Your task to perform on an android device: Open Google Chrome and open the bookmarks view Image 0: 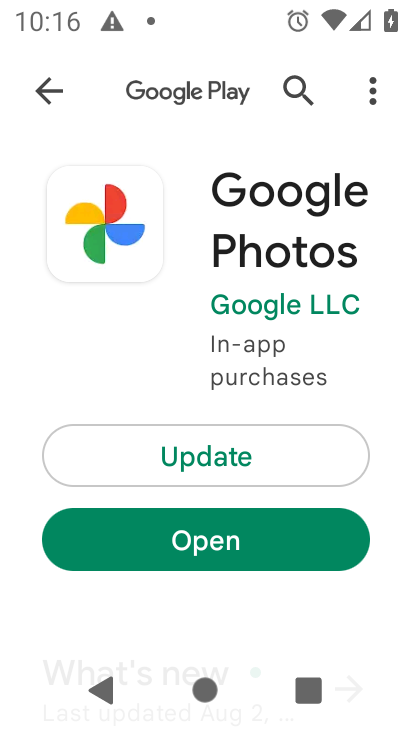
Step 0: press home button
Your task to perform on an android device: Open Google Chrome and open the bookmarks view Image 1: 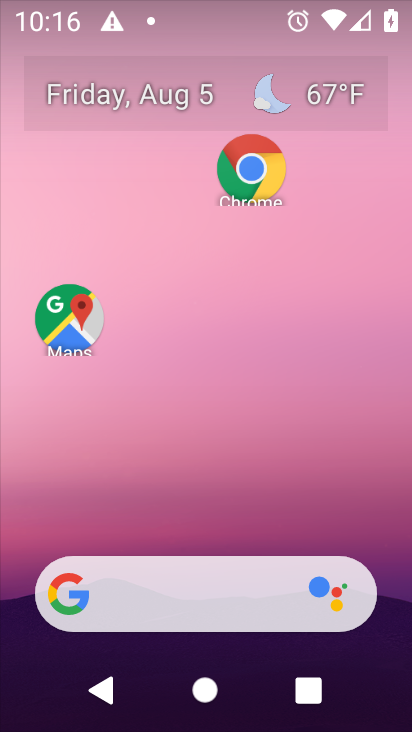
Step 1: click (259, 187)
Your task to perform on an android device: Open Google Chrome and open the bookmarks view Image 2: 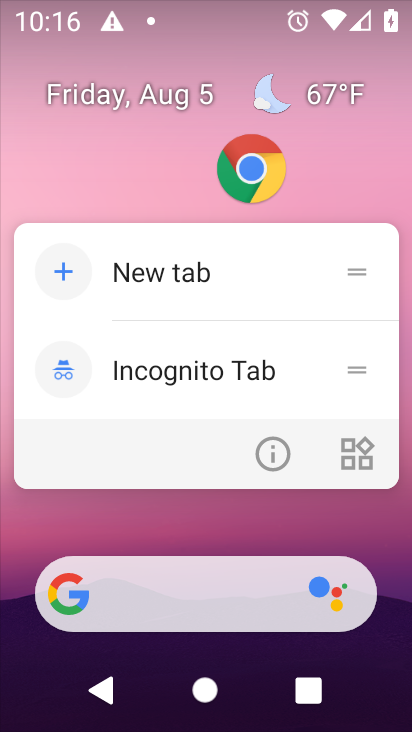
Step 2: click (259, 187)
Your task to perform on an android device: Open Google Chrome and open the bookmarks view Image 3: 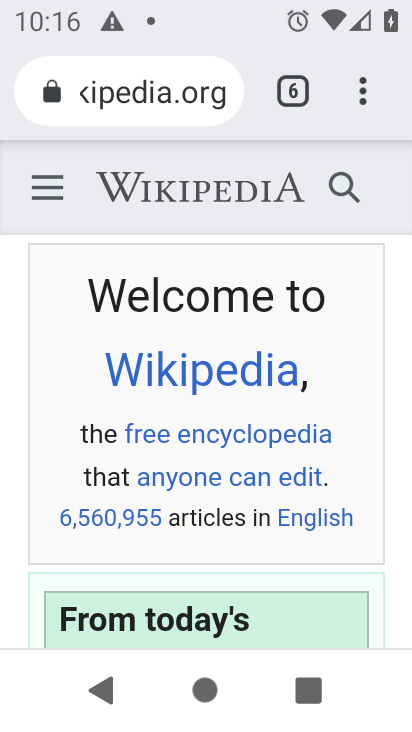
Step 3: click (354, 77)
Your task to perform on an android device: Open Google Chrome and open the bookmarks view Image 4: 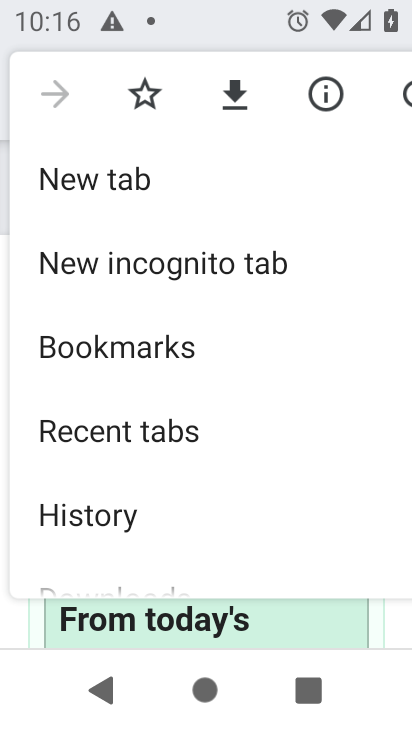
Step 4: click (152, 345)
Your task to perform on an android device: Open Google Chrome and open the bookmarks view Image 5: 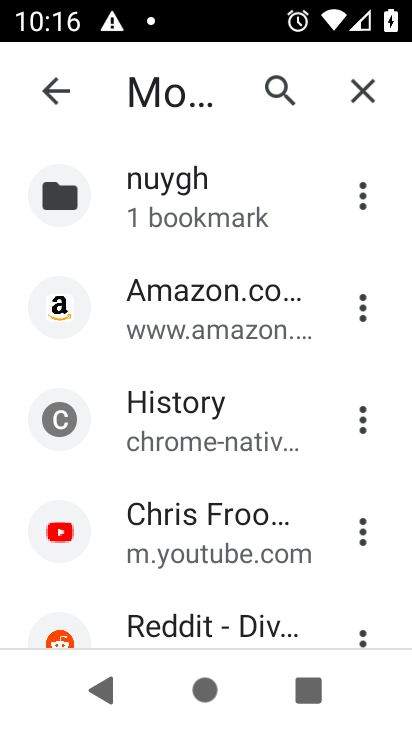
Step 5: task complete